Your task to perform on an android device: allow cookies in the chrome app Image 0: 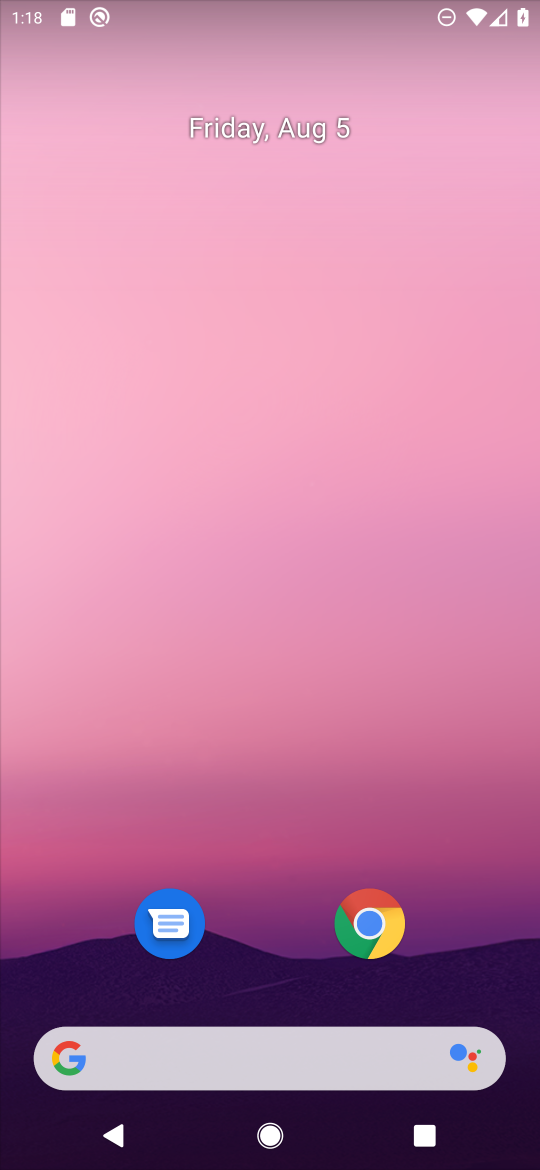
Step 0: drag from (219, 783) to (155, 76)
Your task to perform on an android device: allow cookies in the chrome app Image 1: 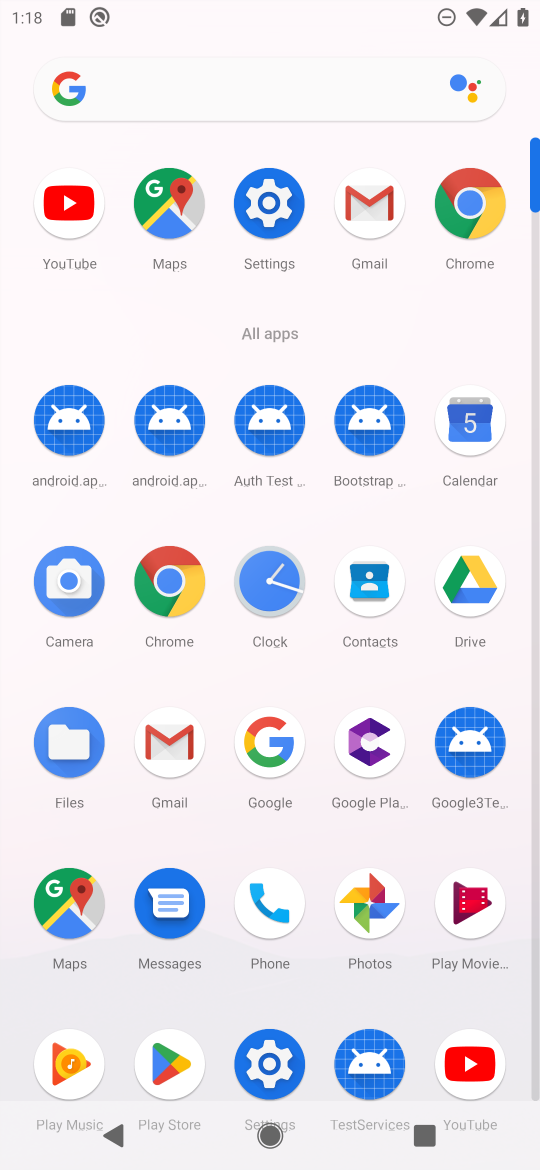
Step 1: click (174, 602)
Your task to perform on an android device: allow cookies in the chrome app Image 2: 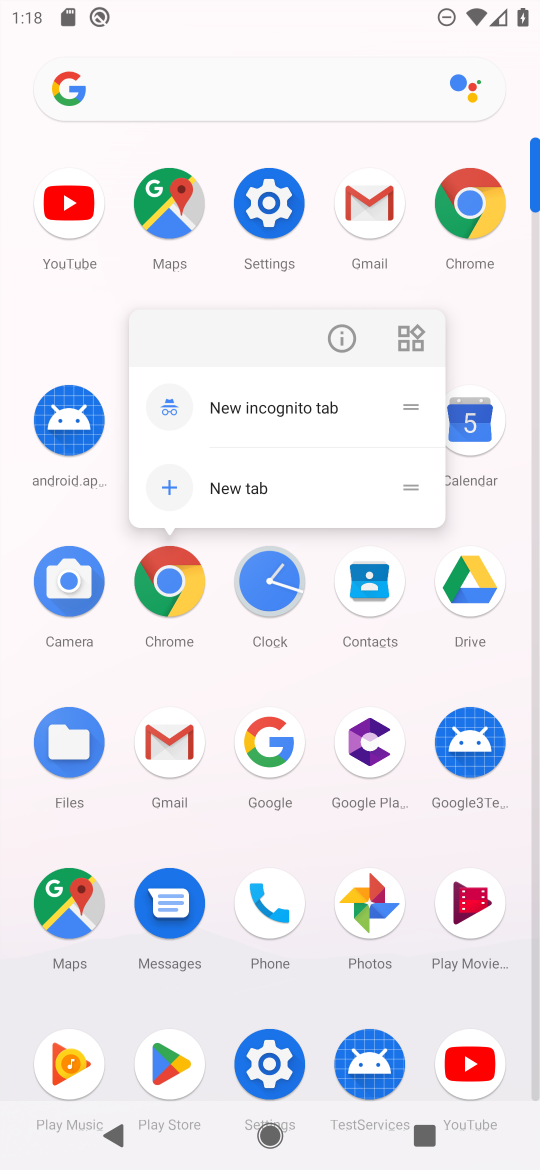
Step 2: click (173, 602)
Your task to perform on an android device: allow cookies in the chrome app Image 3: 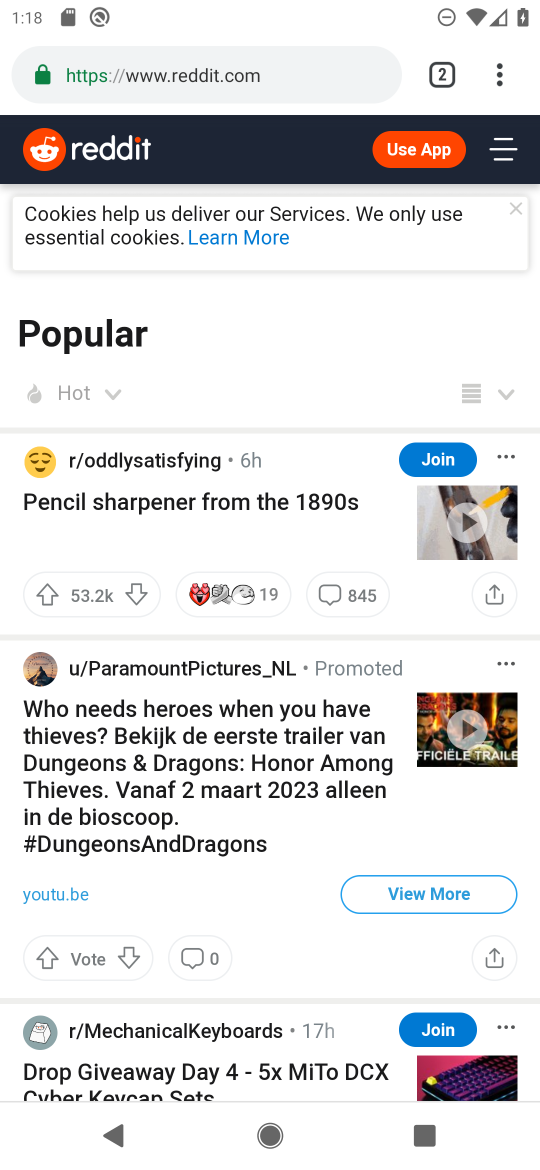
Step 3: drag from (490, 75) to (232, 896)
Your task to perform on an android device: allow cookies in the chrome app Image 4: 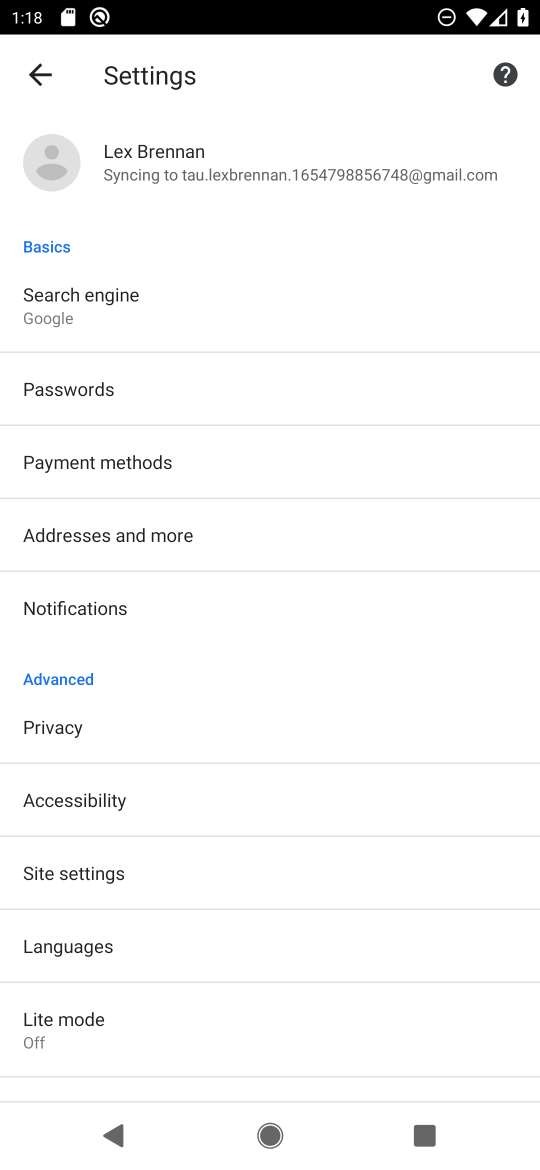
Step 4: click (75, 732)
Your task to perform on an android device: allow cookies in the chrome app Image 5: 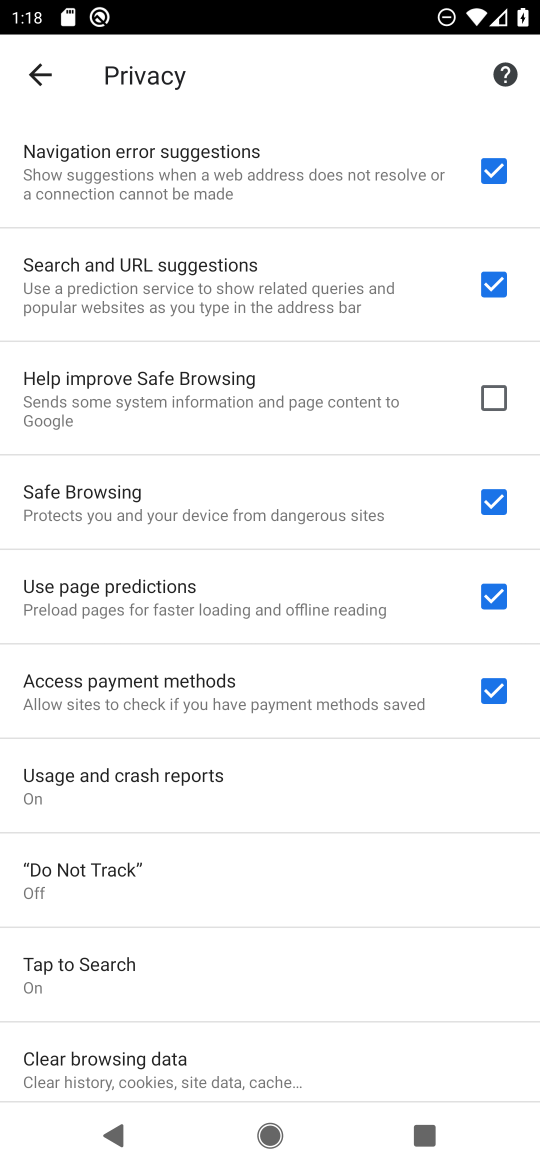
Step 5: click (119, 1064)
Your task to perform on an android device: allow cookies in the chrome app Image 6: 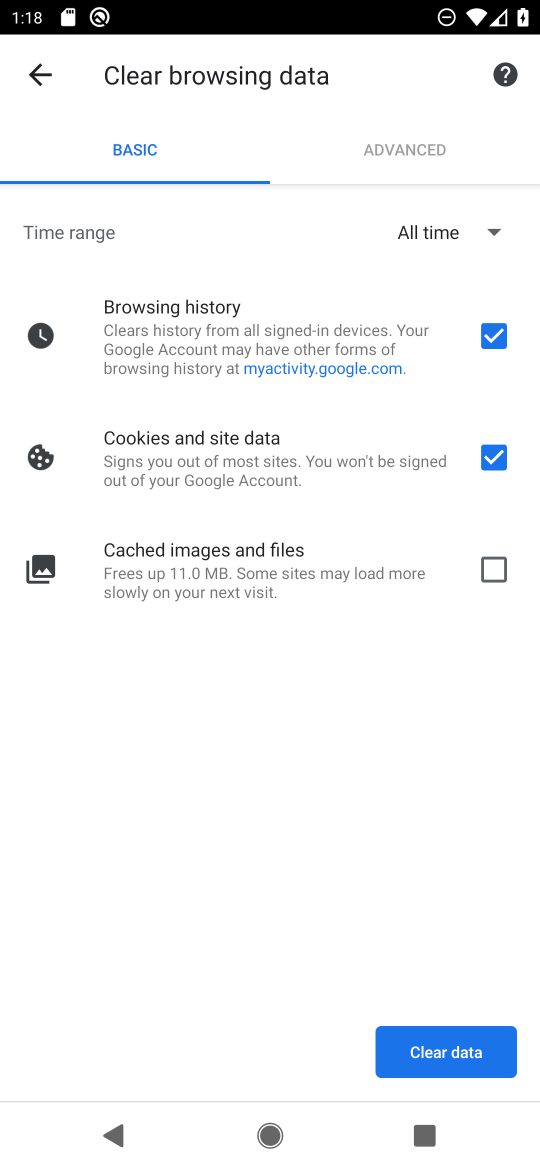
Step 6: click (418, 575)
Your task to perform on an android device: allow cookies in the chrome app Image 7: 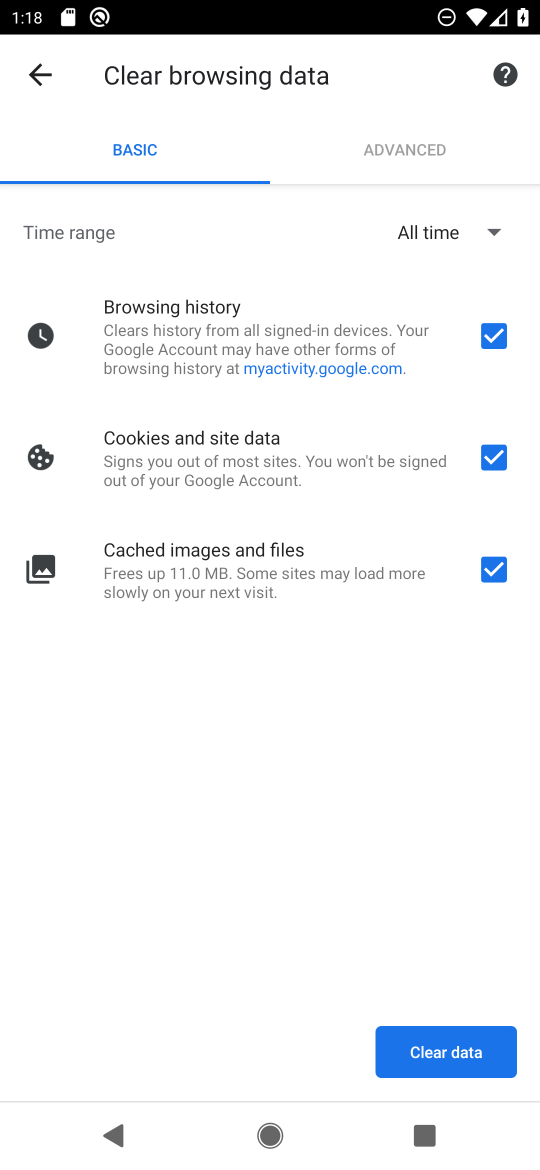
Step 7: click (466, 1046)
Your task to perform on an android device: allow cookies in the chrome app Image 8: 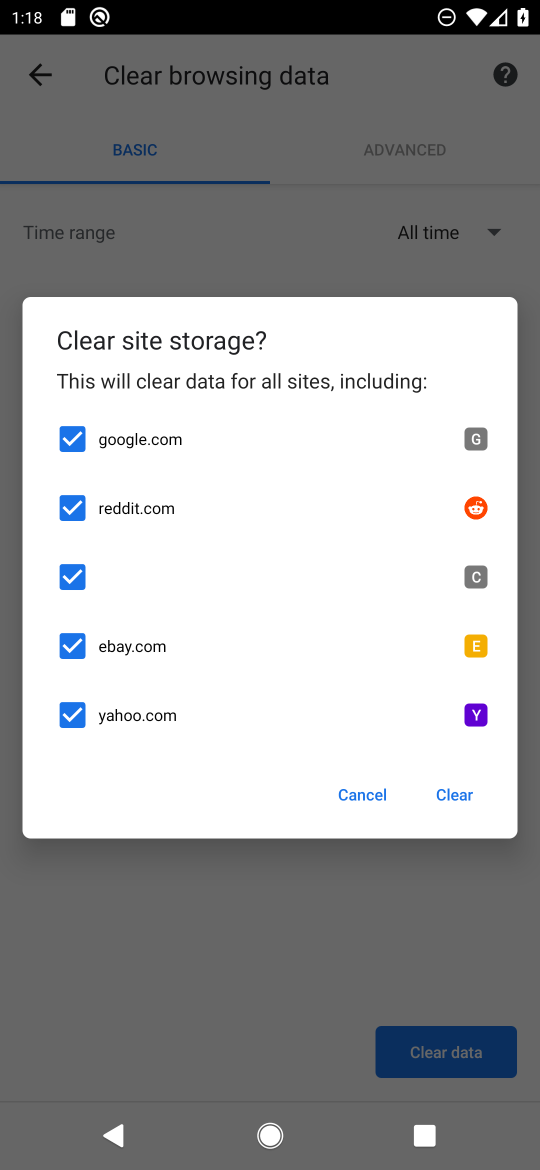
Step 8: click (448, 801)
Your task to perform on an android device: allow cookies in the chrome app Image 9: 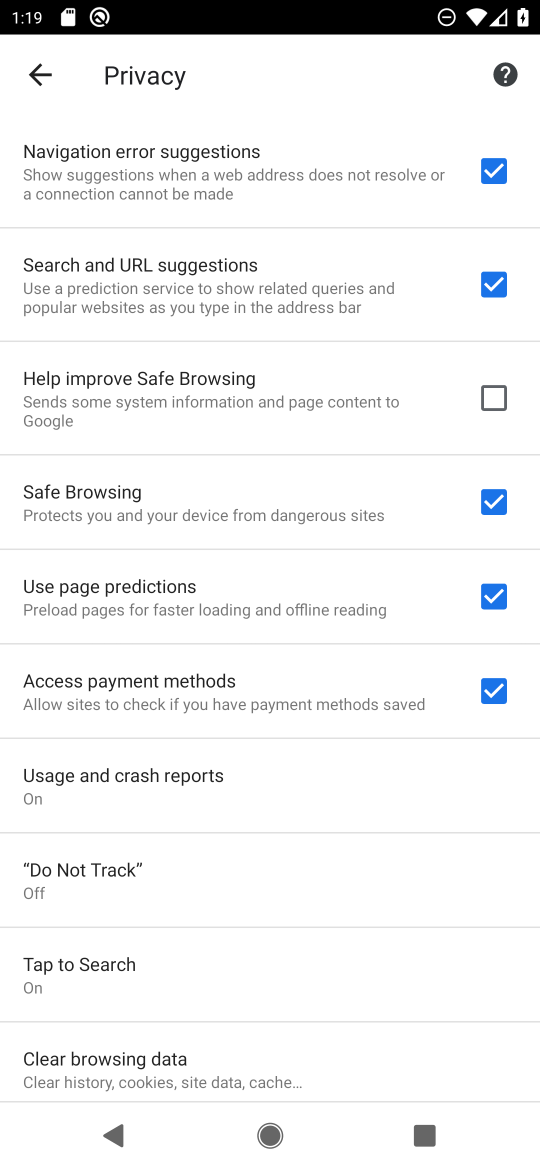
Step 9: task complete